Your task to perform on an android device: Is it going to rain this weekend? Image 0: 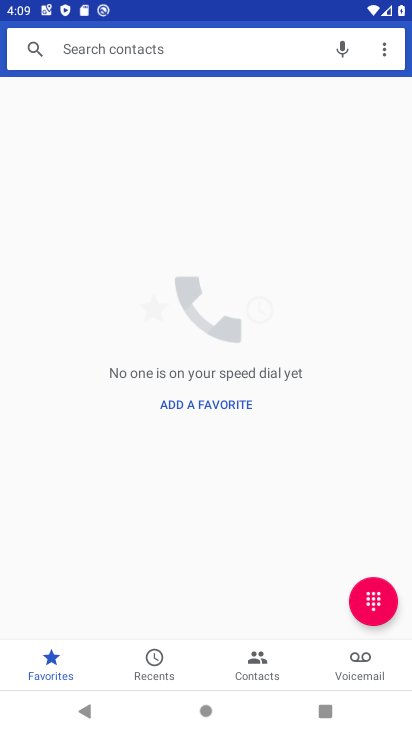
Step 0: press home button
Your task to perform on an android device: Is it going to rain this weekend? Image 1: 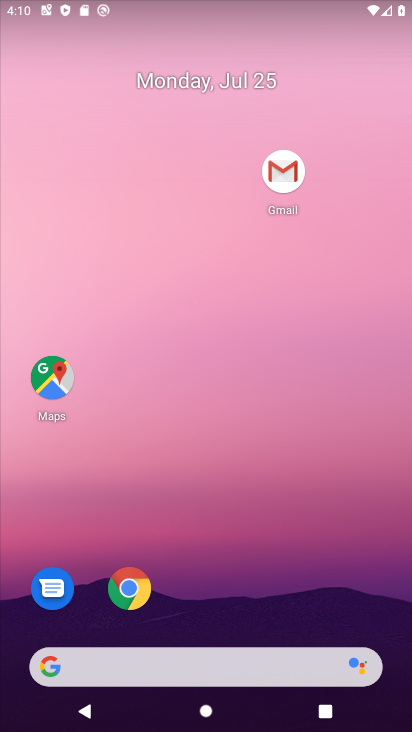
Step 1: drag from (255, 356) to (266, 34)
Your task to perform on an android device: Is it going to rain this weekend? Image 2: 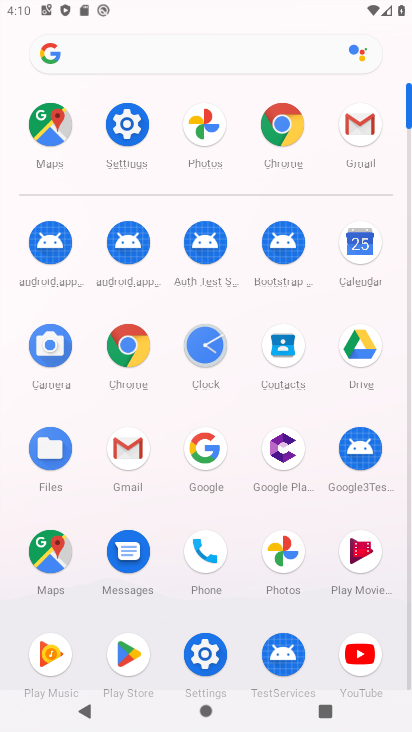
Step 2: click (286, 121)
Your task to perform on an android device: Is it going to rain this weekend? Image 3: 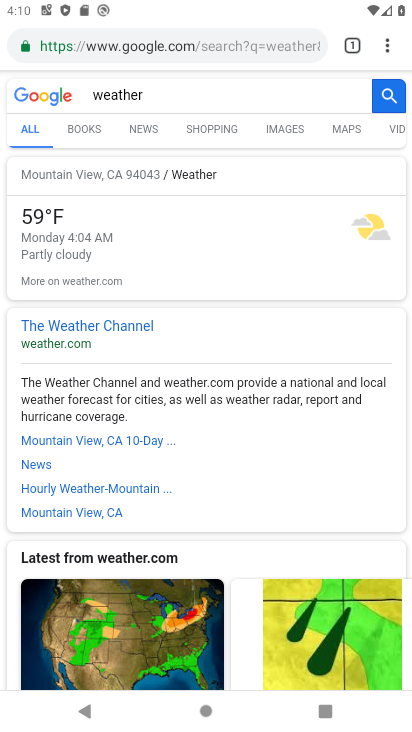
Step 3: click (241, 103)
Your task to perform on an android device: Is it going to rain this weekend? Image 4: 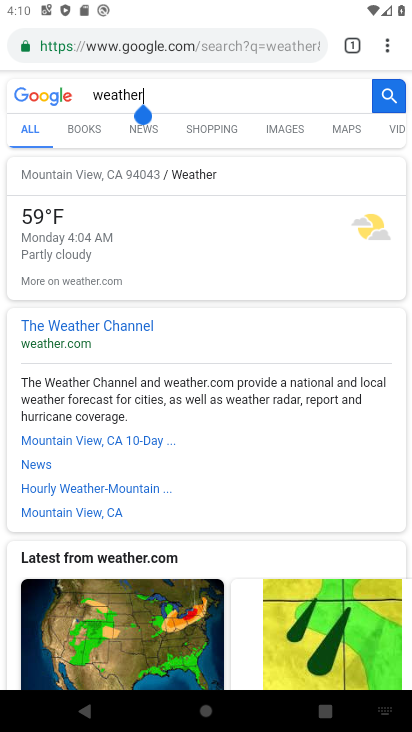
Step 4: type " weather"
Your task to perform on an android device: Is it going to rain this weekend? Image 5: 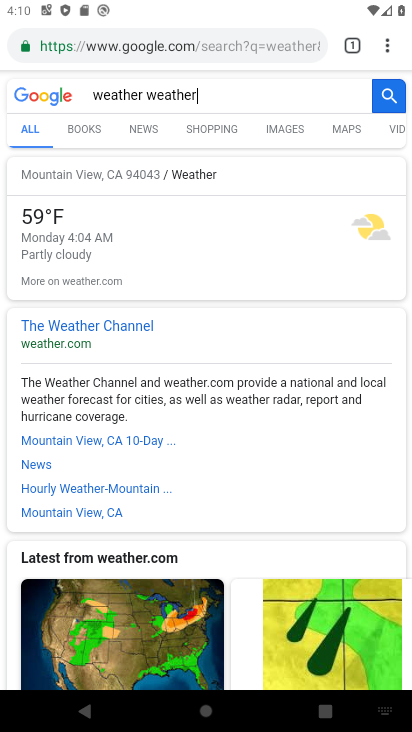
Step 5: type "weekend"
Your task to perform on an android device: Is it going to rain this weekend? Image 6: 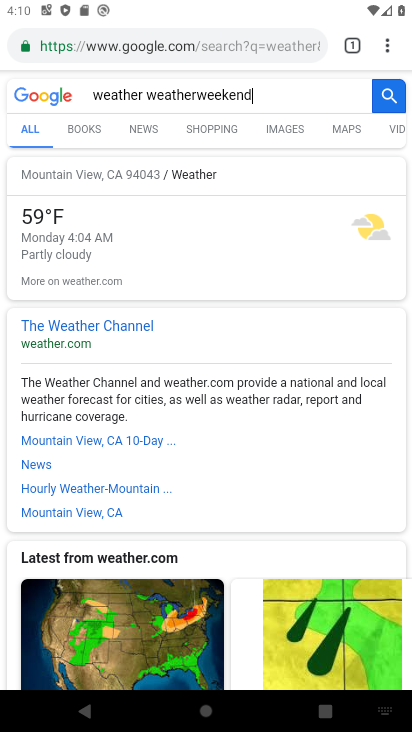
Step 6: click (394, 91)
Your task to perform on an android device: Is it going to rain this weekend? Image 7: 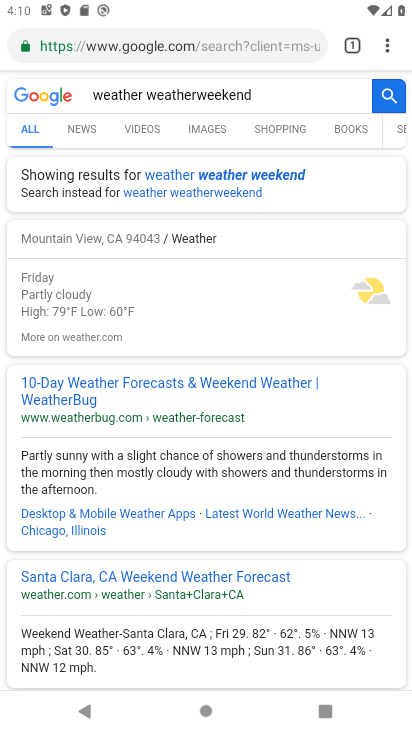
Step 7: click (191, 174)
Your task to perform on an android device: Is it going to rain this weekend? Image 8: 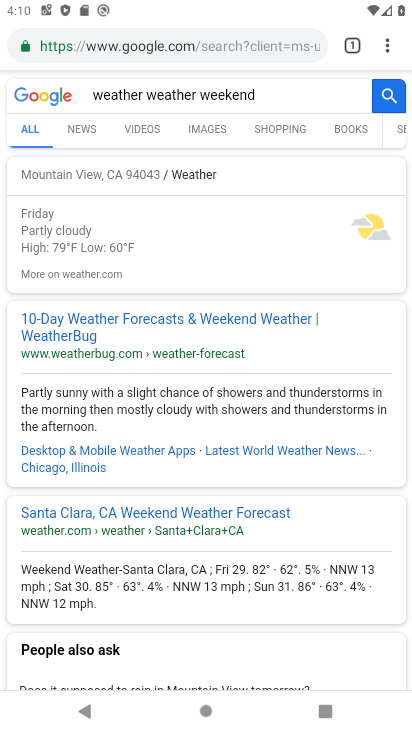
Step 8: task complete